Your task to perform on an android device: Go to privacy settings Image 0: 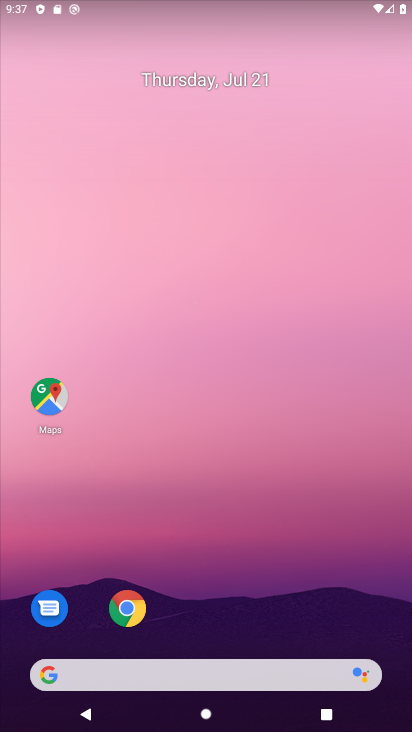
Step 0: drag from (183, 667) to (149, 100)
Your task to perform on an android device: Go to privacy settings Image 1: 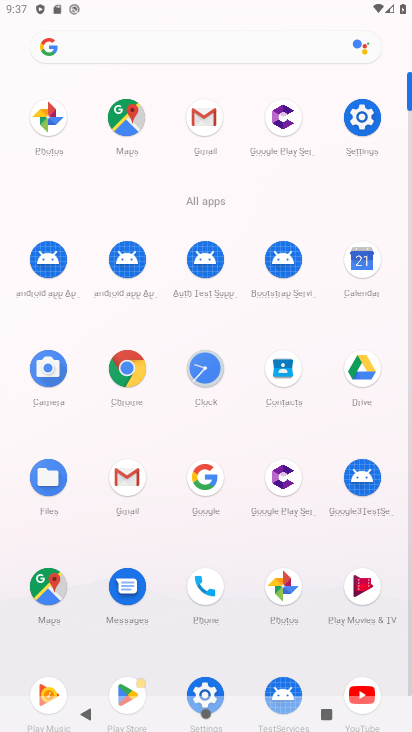
Step 1: click (359, 130)
Your task to perform on an android device: Go to privacy settings Image 2: 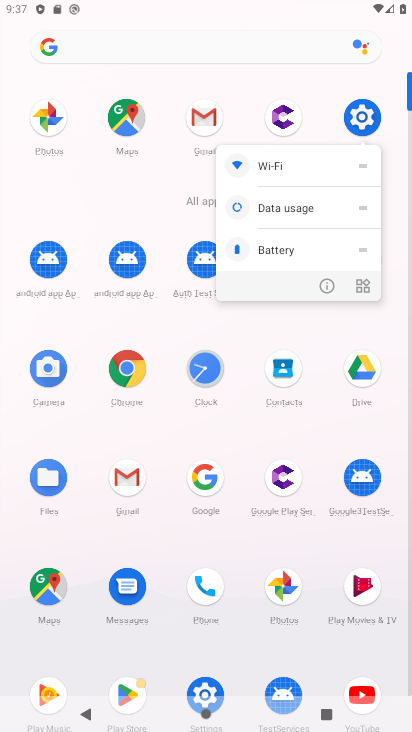
Step 2: click (364, 120)
Your task to perform on an android device: Go to privacy settings Image 3: 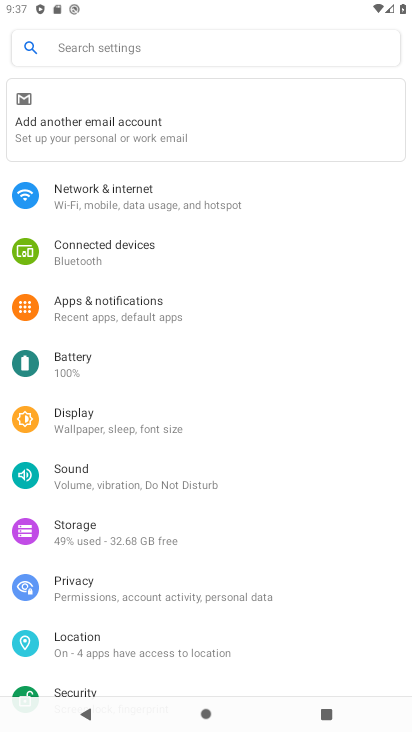
Step 3: click (90, 588)
Your task to perform on an android device: Go to privacy settings Image 4: 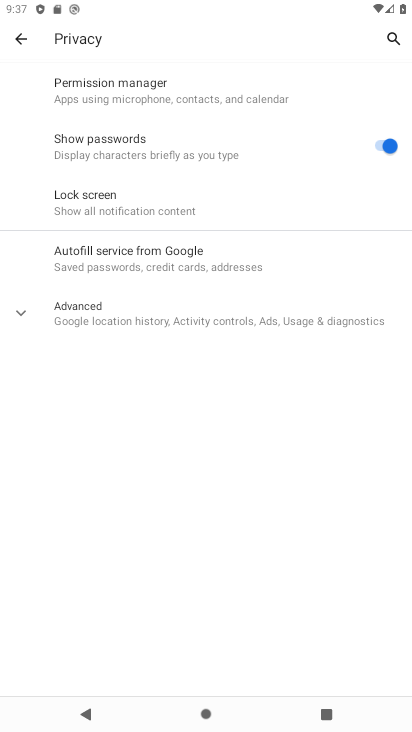
Step 4: task complete